Your task to perform on an android device: Check the news Image 0: 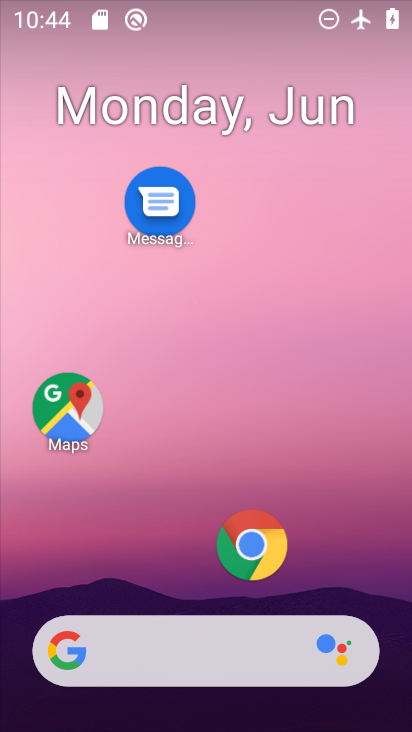
Step 0: drag from (225, 597) to (249, 220)
Your task to perform on an android device: Check the news Image 1: 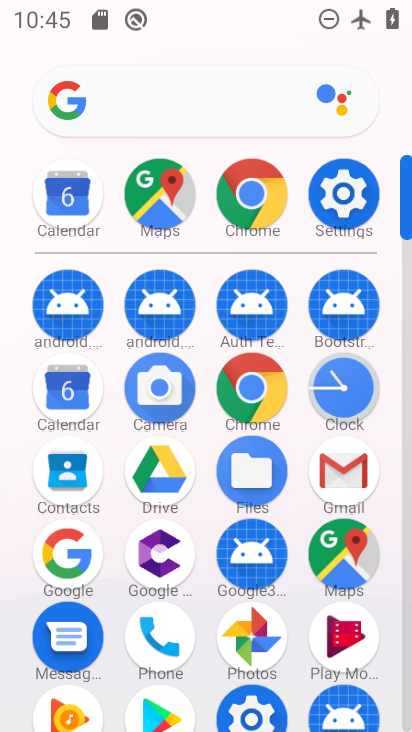
Step 1: click (236, 394)
Your task to perform on an android device: Check the news Image 2: 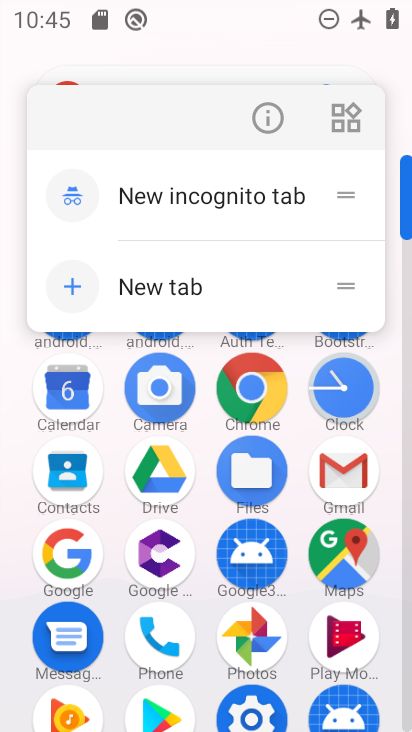
Step 2: click (280, 387)
Your task to perform on an android device: Check the news Image 3: 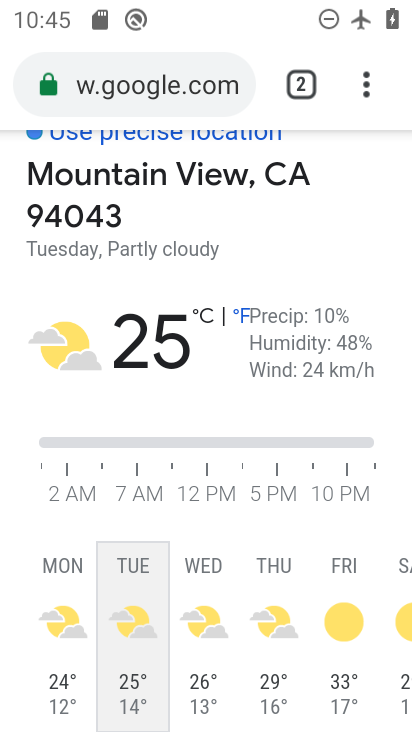
Step 3: click (195, 93)
Your task to perform on an android device: Check the news Image 4: 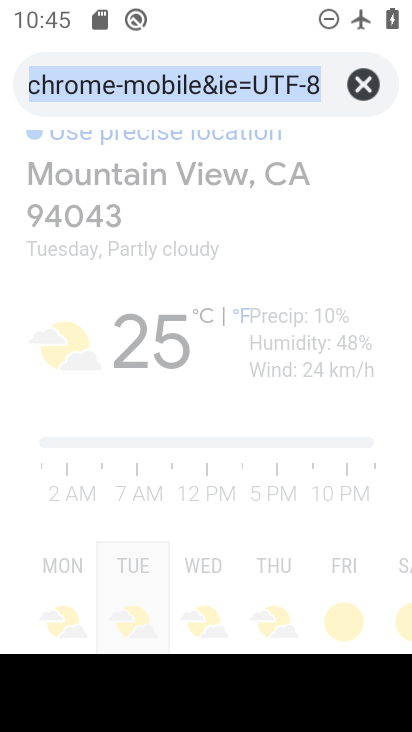
Step 4: type "news"
Your task to perform on an android device: Check the news Image 5: 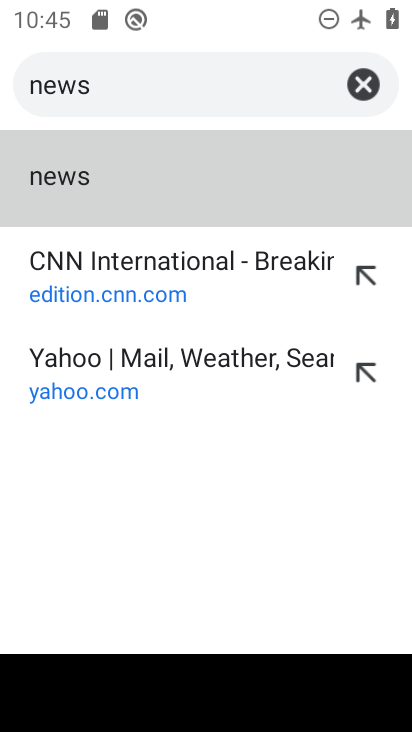
Step 5: click (110, 199)
Your task to perform on an android device: Check the news Image 6: 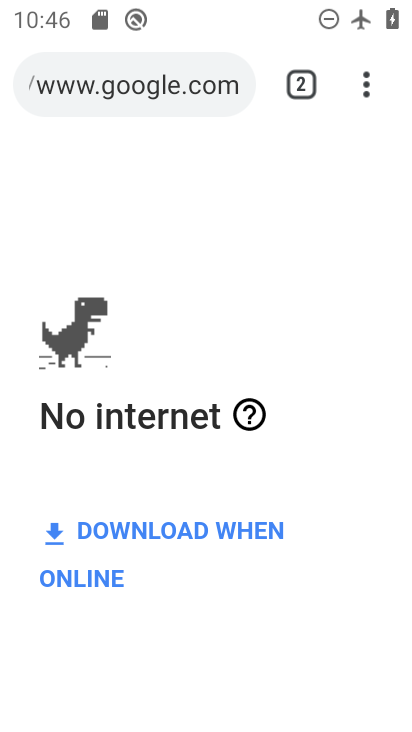
Step 6: task complete